Your task to perform on an android device: change your default location settings in chrome Image 0: 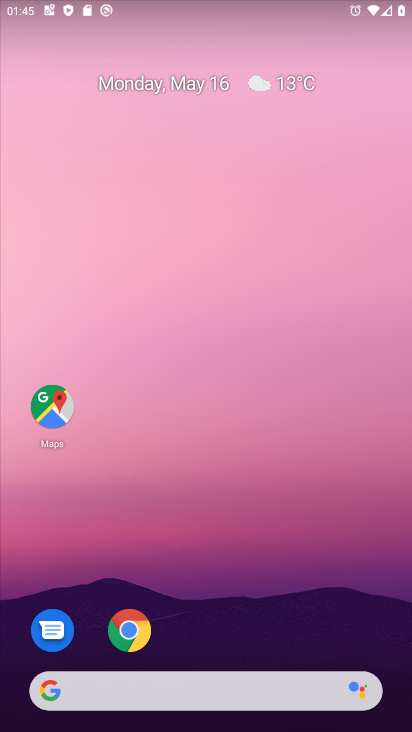
Step 0: click (126, 628)
Your task to perform on an android device: change your default location settings in chrome Image 1: 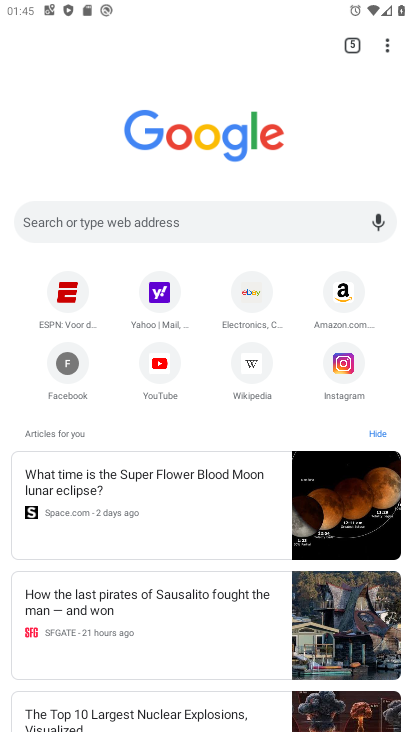
Step 1: click (392, 51)
Your task to perform on an android device: change your default location settings in chrome Image 2: 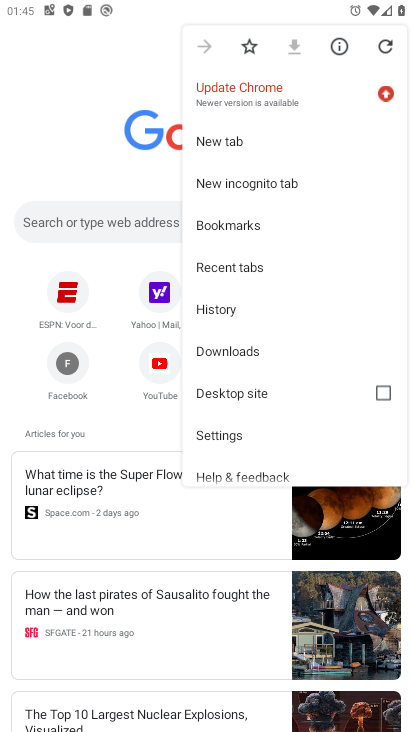
Step 2: click (257, 442)
Your task to perform on an android device: change your default location settings in chrome Image 3: 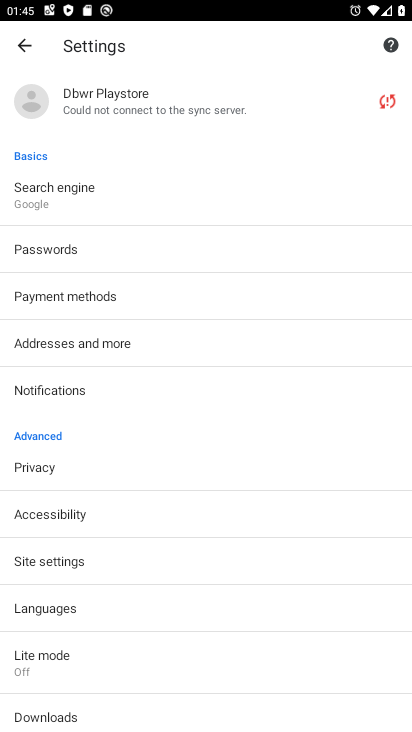
Step 3: drag from (258, 442) to (290, 210)
Your task to perform on an android device: change your default location settings in chrome Image 4: 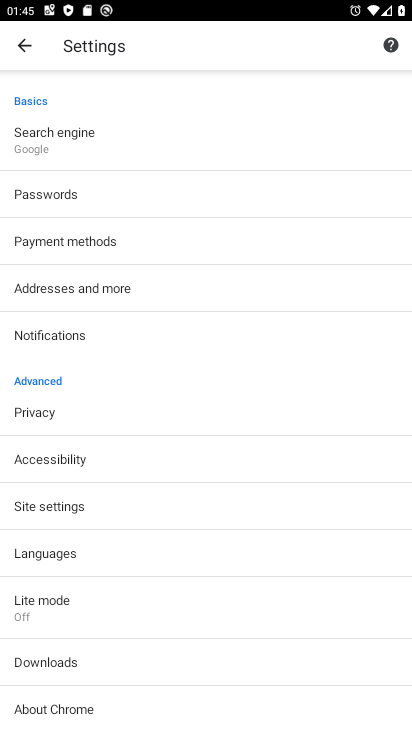
Step 4: drag from (258, 444) to (242, 348)
Your task to perform on an android device: change your default location settings in chrome Image 5: 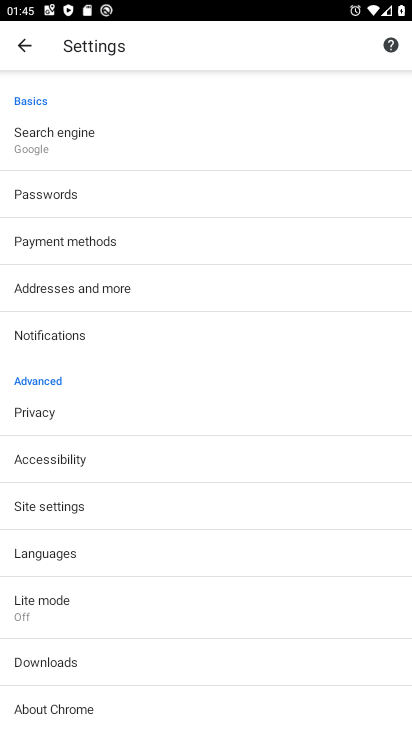
Step 5: click (142, 504)
Your task to perform on an android device: change your default location settings in chrome Image 6: 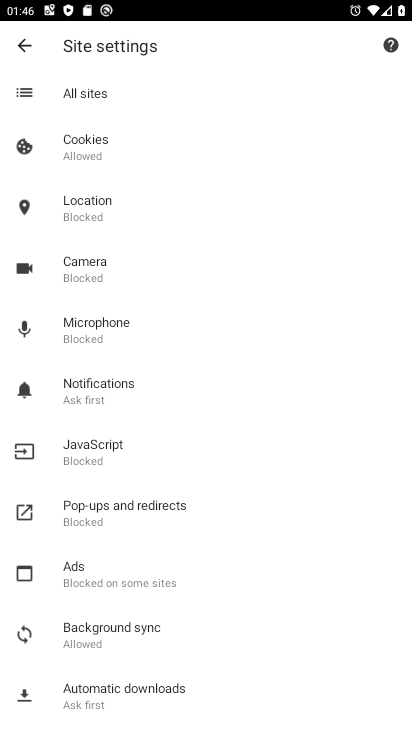
Step 6: click (88, 215)
Your task to perform on an android device: change your default location settings in chrome Image 7: 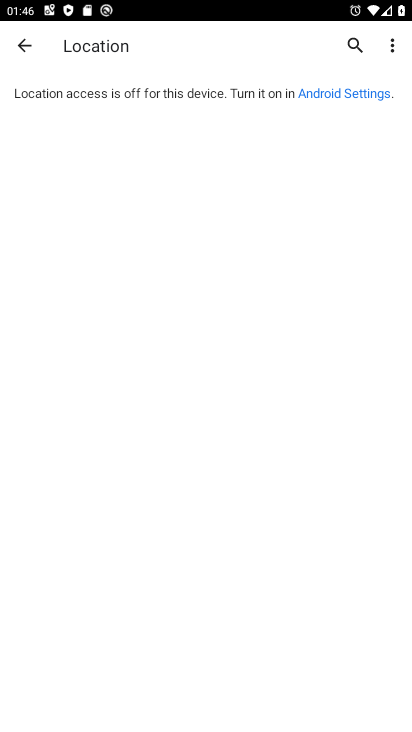
Step 7: task complete